Your task to perform on an android device: see tabs open on other devices in the chrome app Image 0: 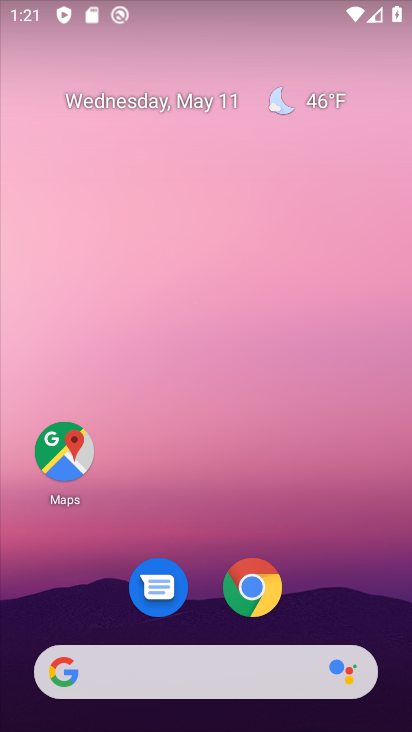
Step 0: drag from (323, 596) to (308, 278)
Your task to perform on an android device: see tabs open on other devices in the chrome app Image 1: 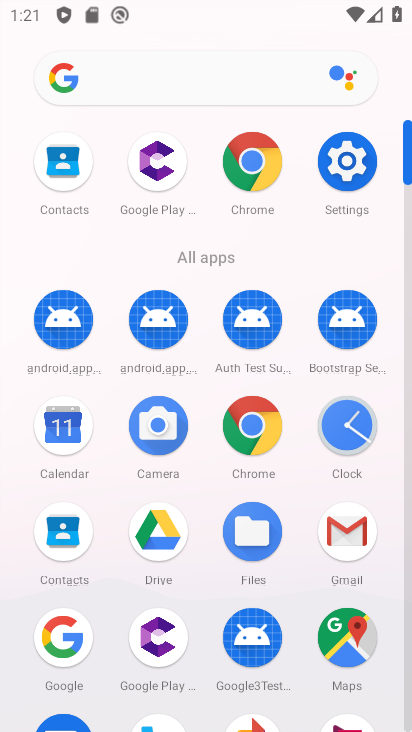
Step 1: click (249, 434)
Your task to perform on an android device: see tabs open on other devices in the chrome app Image 2: 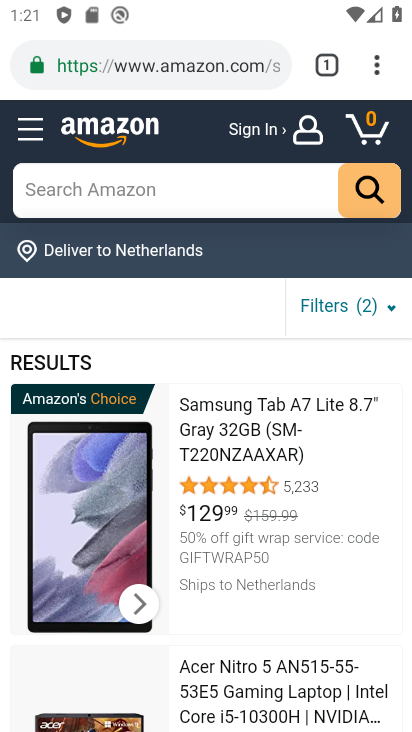
Step 2: task complete